Your task to perform on an android device: see creations saved in the google photos Image 0: 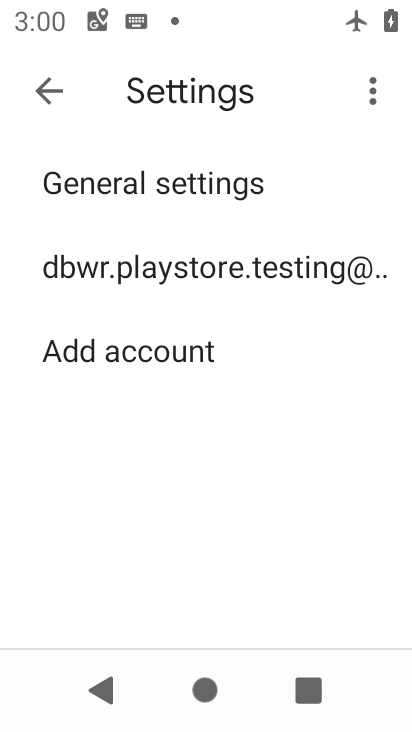
Step 0: press home button
Your task to perform on an android device: see creations saved in the google photos Image 1: 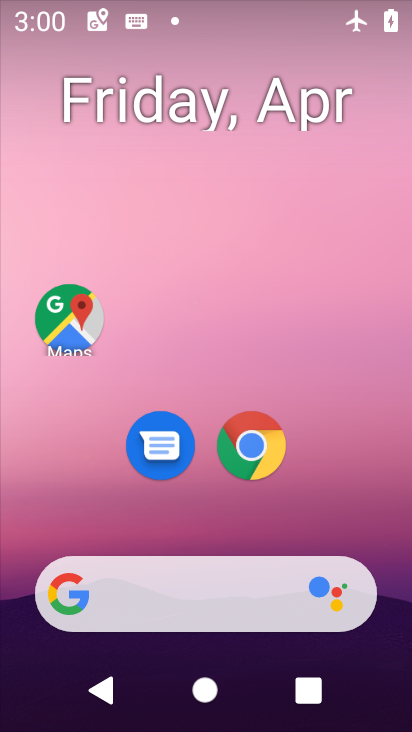
Step 1: drag from (342, 522) to (286, 129)
Your task to perform on an android device: see creations saved in the google photos Image 2: 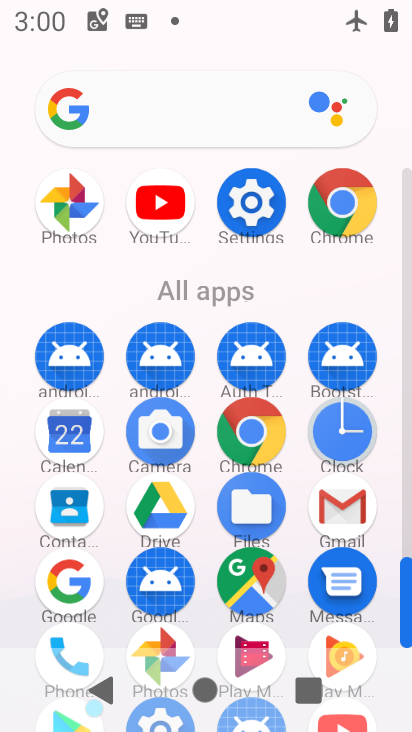
Step 2: drag from (199, 575) to (207, 384)
Your task to perform on an android device: see creations saved in the google photos Image 3: 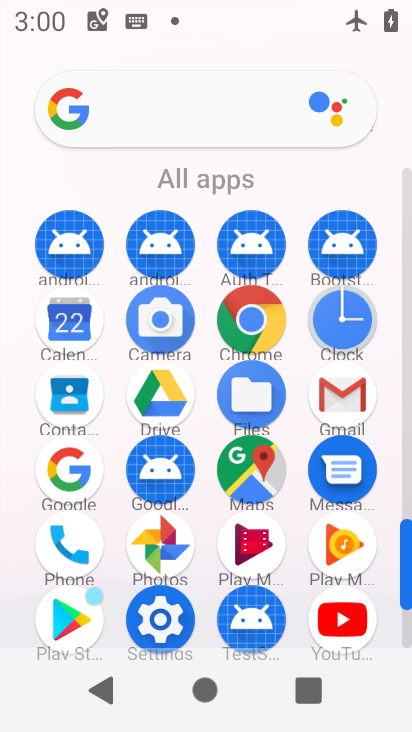
Step 3: click (160, 521)
Your task to perform on an android device: see creations saved in the google photos Image 4: 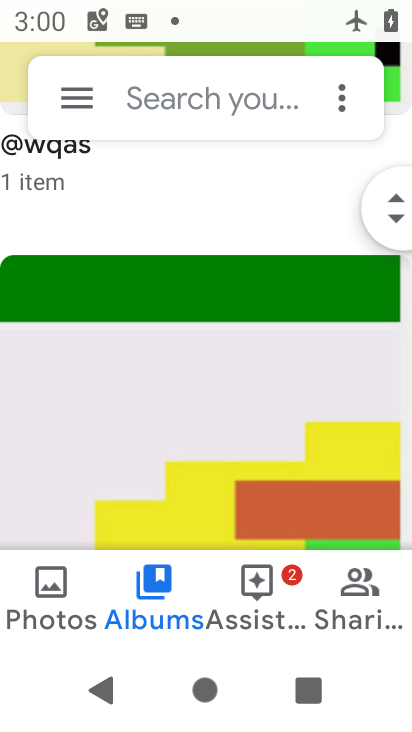
Step 4: click (177, 105)
Your task to perform on an android device: see creations saved in the google photos Image 5: 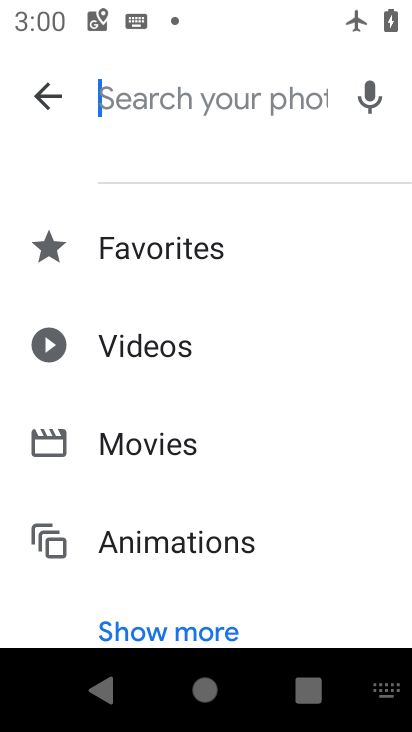
Step 5: click (189, 639)
Your task to perform on an android device: see creations saved in the google photos Image 6: 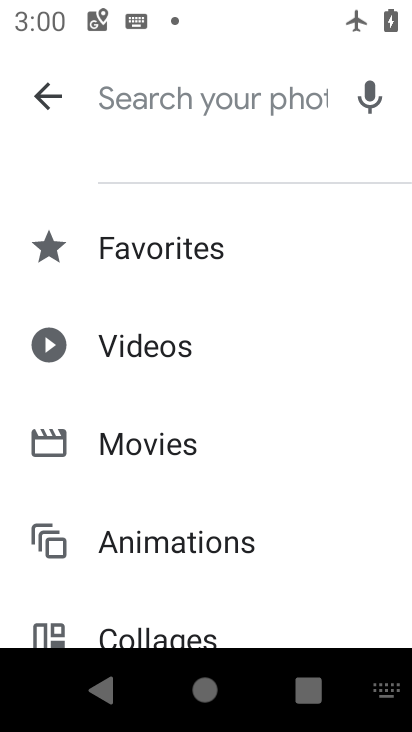
Step 6: drag from (188, 629) to (182, 275)
Your task to perform on an android device: see creations saved in the google photos Image 7: 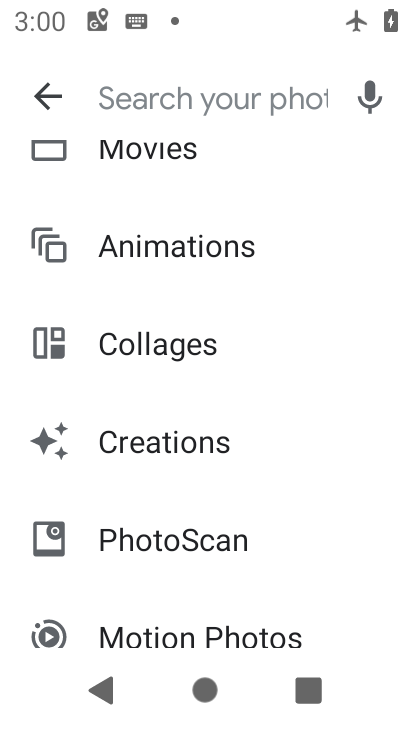
Step 7: click (149, 444)
Your task to perform on an android device: see creations saved in the google photos Image 8: 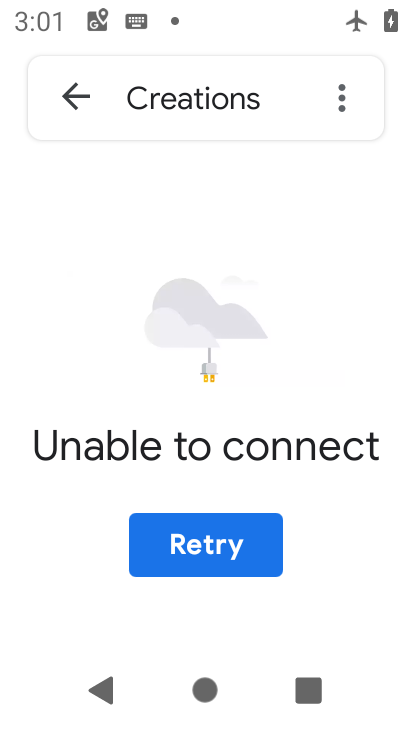
Step 8: click (206, 556)
Your task to perform on an android device: see creations saved in the google photos Image 9: 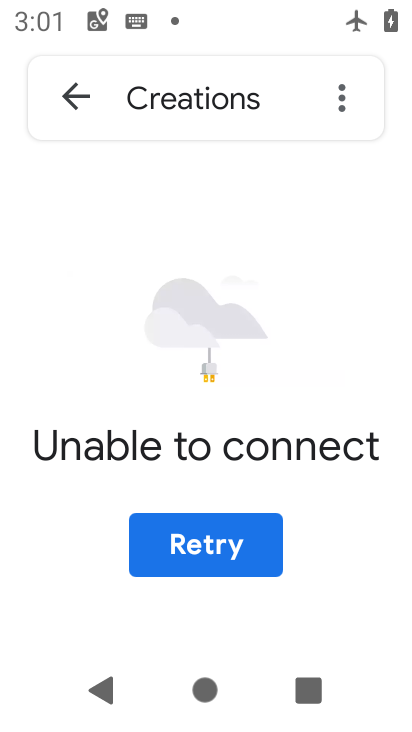
Step 9: task complete